Your task to perform on an android device: Go to location settings Image 0: 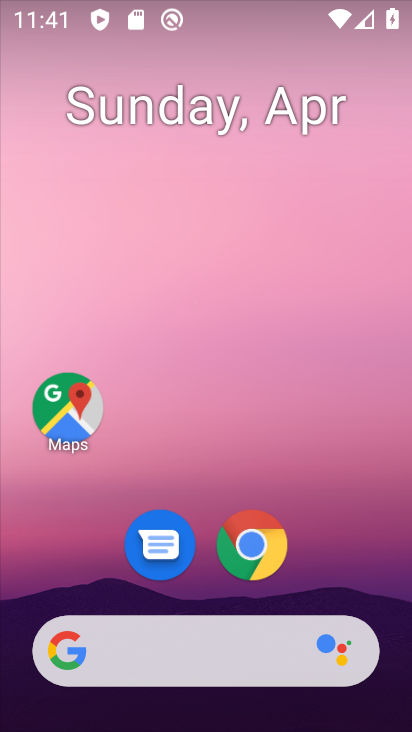
Step 0: drag from (200, 536) to (343, 101)
Your task to perform on an android device: Go to location settings Image 1: 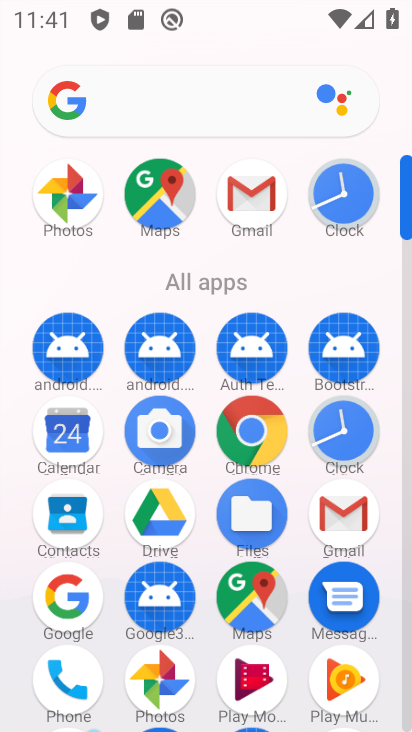
Step 1: drag from (198, 630) to (296, 389)
Your task to perform on an android device: Go to location settings Image 2: 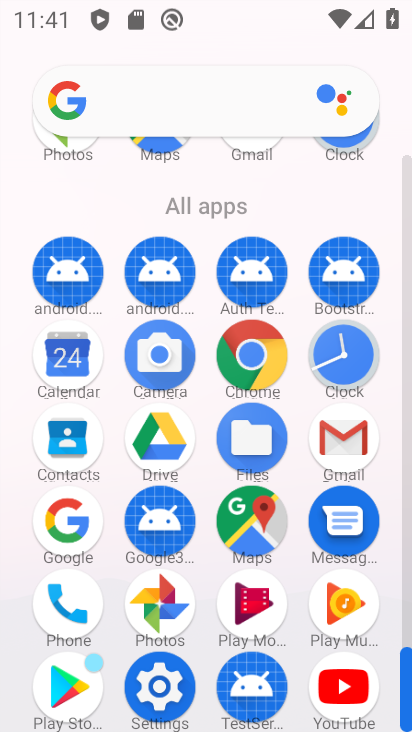
Step 2: click (160, 690)
Your task to perform on an android device: Go to location settings Image 3: 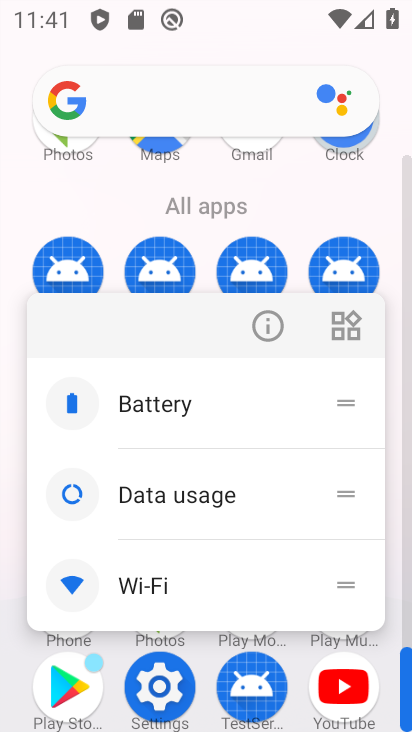
Step 3: click (167, 686)
Your task to perform on an android device: Go to location settings Image 4: 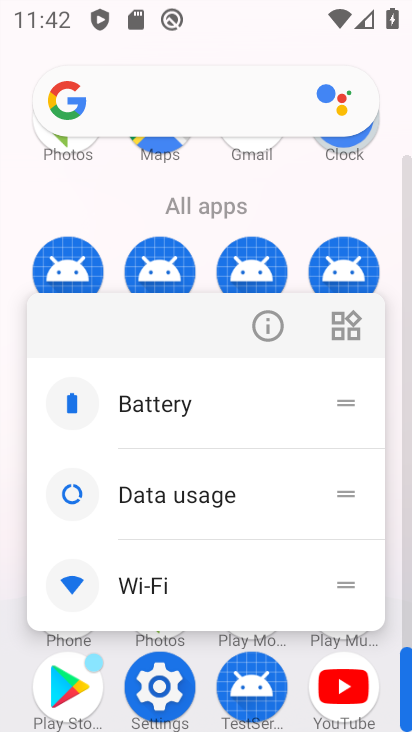
Step 4: click (171, 690)
Your task to perform on an android device: Go to location settings Image 5: 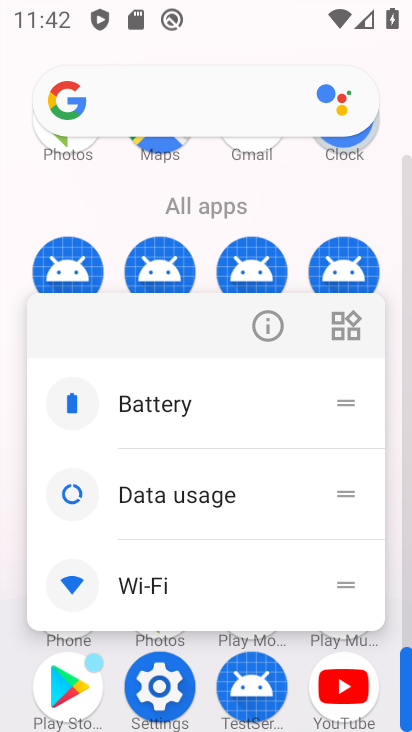
Step 5: click (168, 711)
Your task to perform on an android device: Go to location settings Image 6: 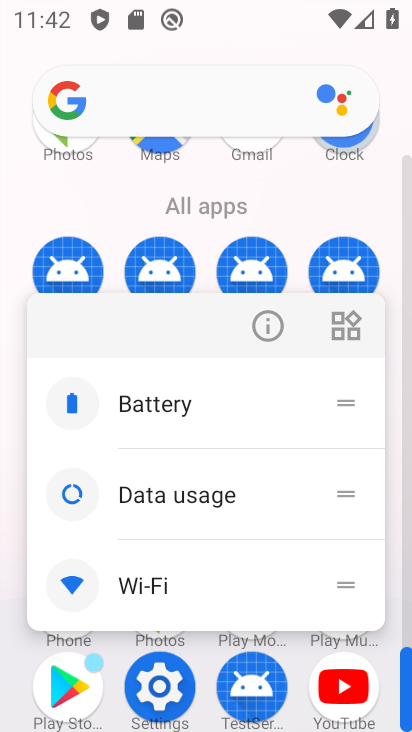
Step 6: click (175, 706)
Your task to perform on an android device: Go to location settings Image 7: 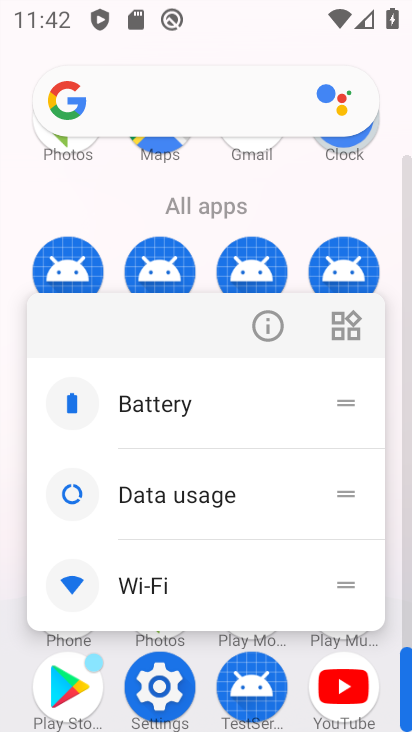
Step 7: click (174, 691)
Your task to perform on an android device: Go to location settings Image 8: 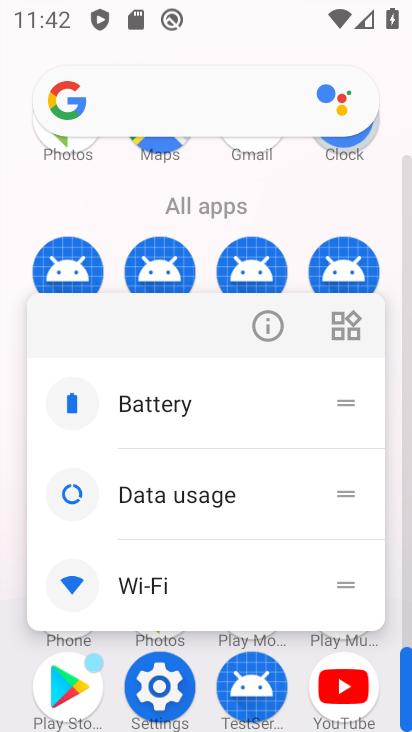
Step 8: click (166, 693)
Your task to perform on an android device: Go to location settings Image 9: 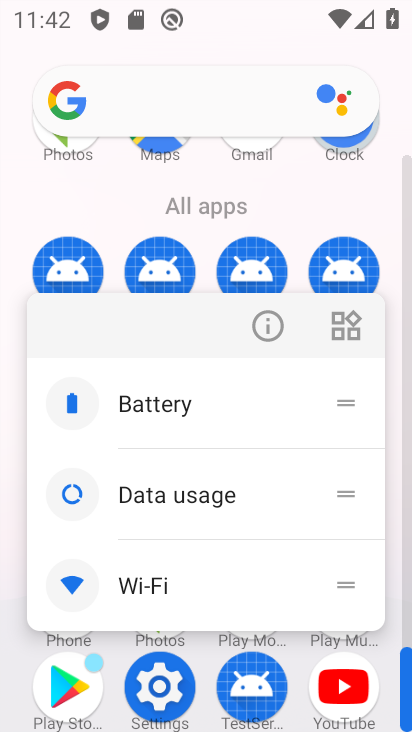
Step 9: click (157, 685)
Your task to perform on an android device: Go to location settings Image 10: 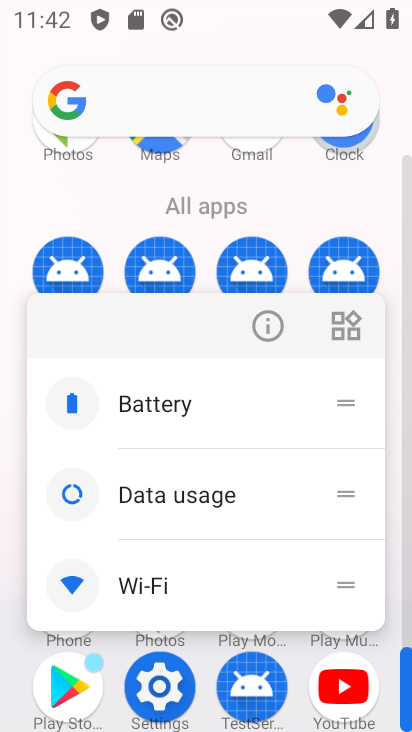
Step 10: click (148, 679)
Your task to perform on an android device: Go to location settings Image 11: 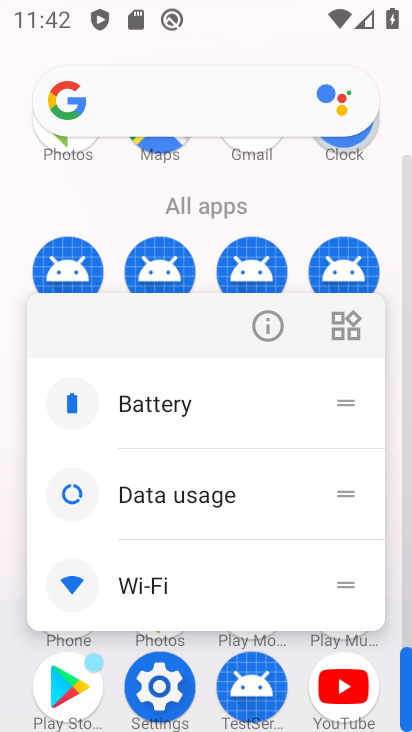
Step 11: click (159, 681)
Your task to perform on an android device: Go to location settings Image 12: 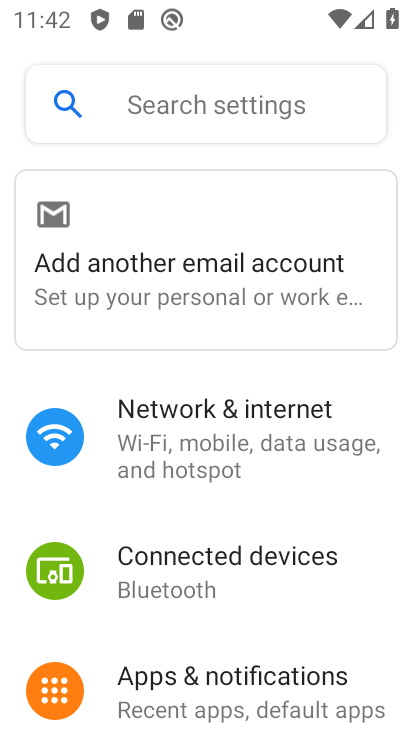
Step 12: drag from (263, 682) to (375, 265)
Your task to perform on an android device: Go to location settings Image 13: 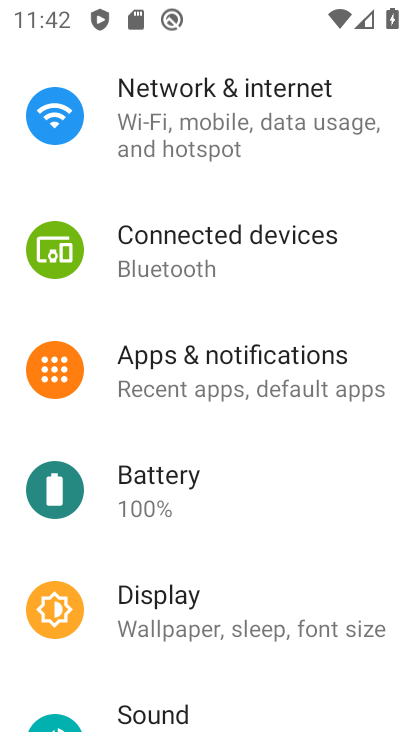
Step 13: drag from (219, 593) to (346, 213)
Your task to perform on an android device: Go to location settings Image 14: 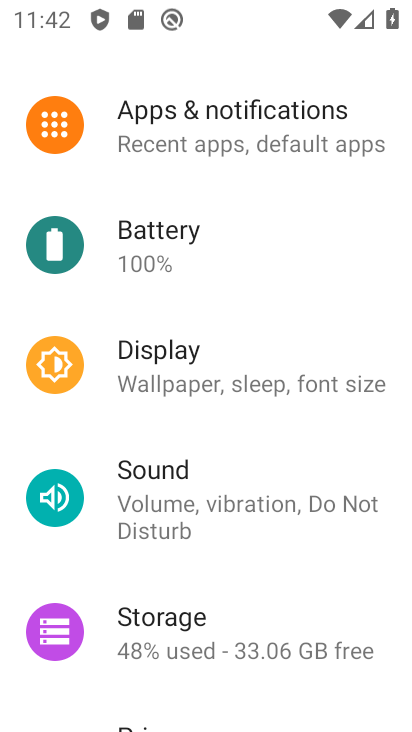
Step 14: drag from (159, 661) to (332, 222)
Your task to perform on an android device: Go to location settings Image 15: 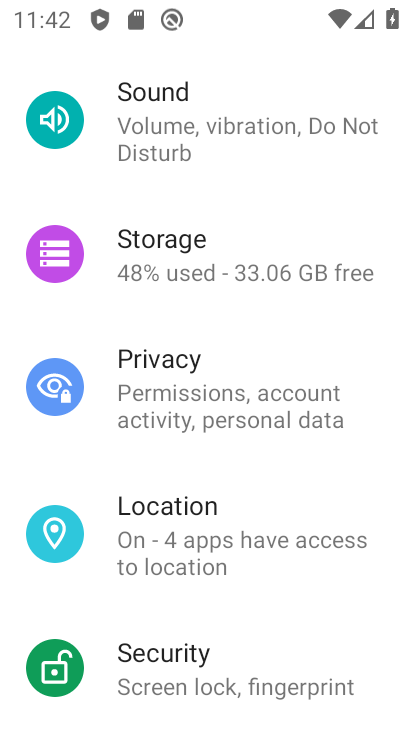
Step 15: click (210, 520)
Your task to perform on an android device: Go to location settings Image 16: 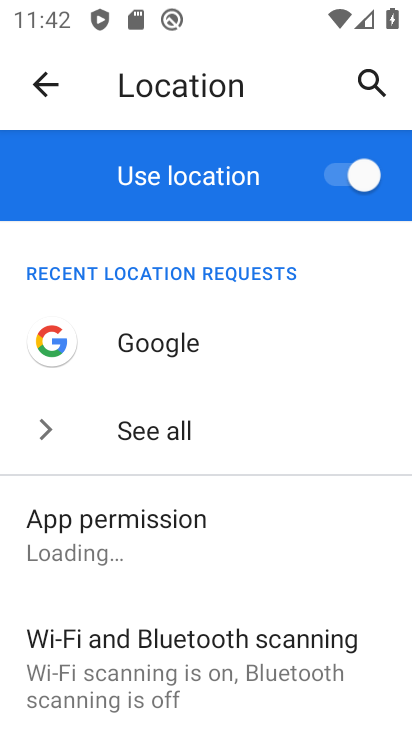
Step 16: task complete